Your task to perform on an android device: delete a single message in the gmail app Image 0: 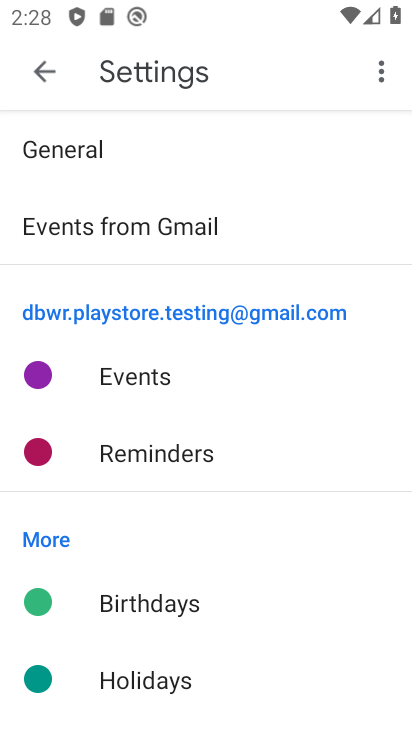
Step 0: press back button
Your task to perform on an android device: delete a single message in the gmail app Image 1: 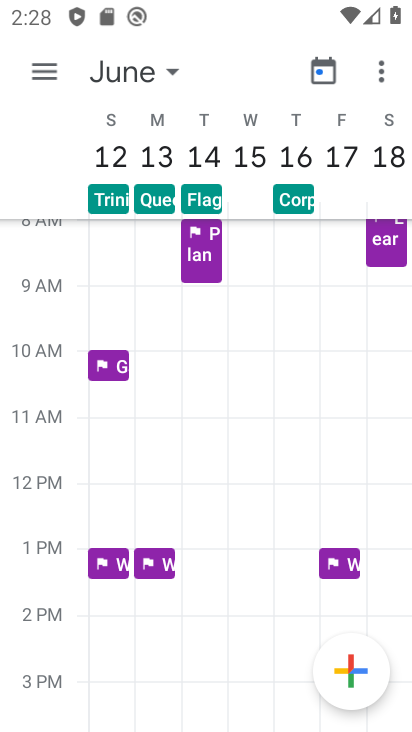
Step 1: press home button
Your task to perform on an android device: delete a single message in the gmail app Image 2: 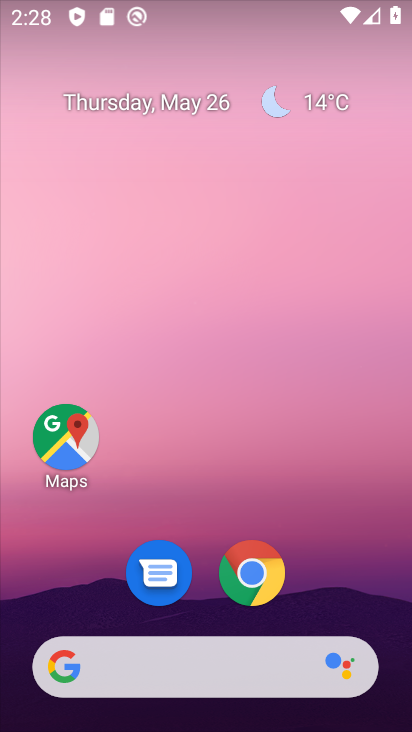
Step 2: drag from (306, 580) to (293, 20)
Your task to perform on an android device: delete a single message in the gmail app Image 3: 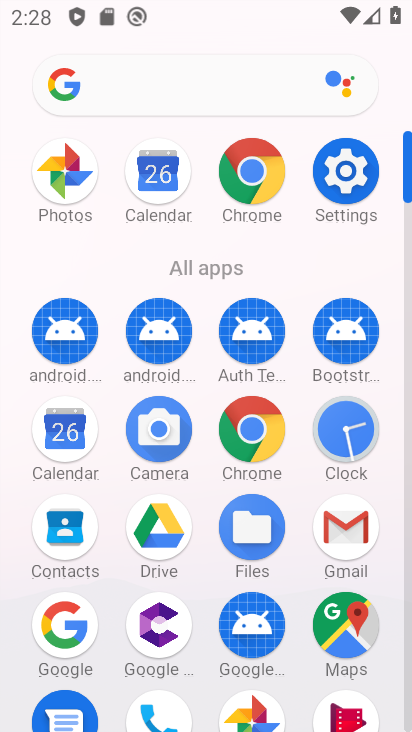
Step 3: click (344, 524)
Your task to perform on an android device: delete a single message in the gmail app Image 4: 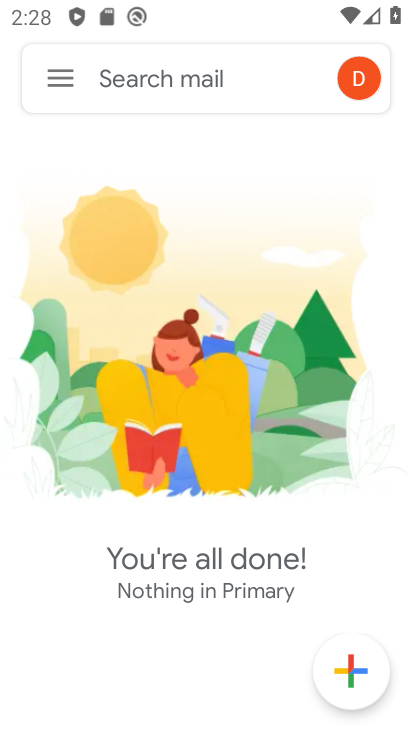
Step 4: click (54, 85)
Your task to perform on an android device: delete a single message in the gmail app Image 5: 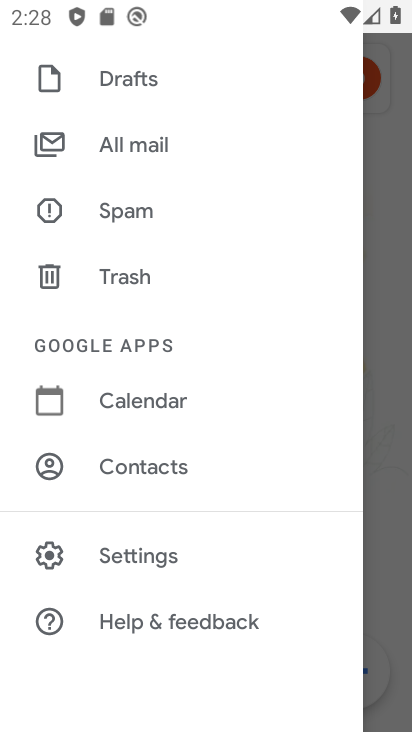
Step 5: drag from (202, 115) to (207, 537)
Your task to perform on an android device: delete a single message in the gmail app Image 6: 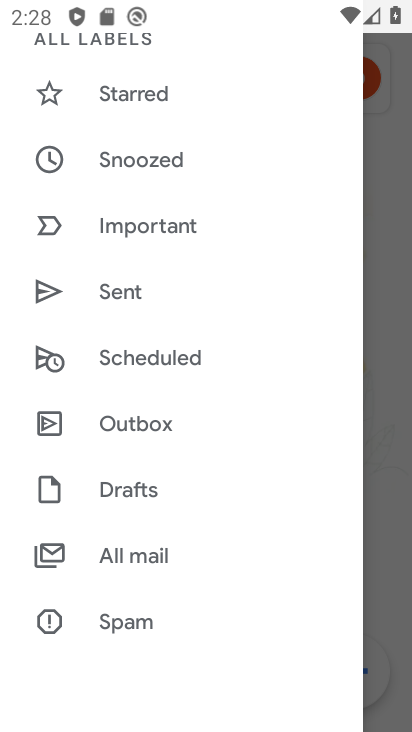
Step 6: drag from (247, 157) to (246, 575)
Your task to perform on an android device: delete a single message in the gmail app Image 7: 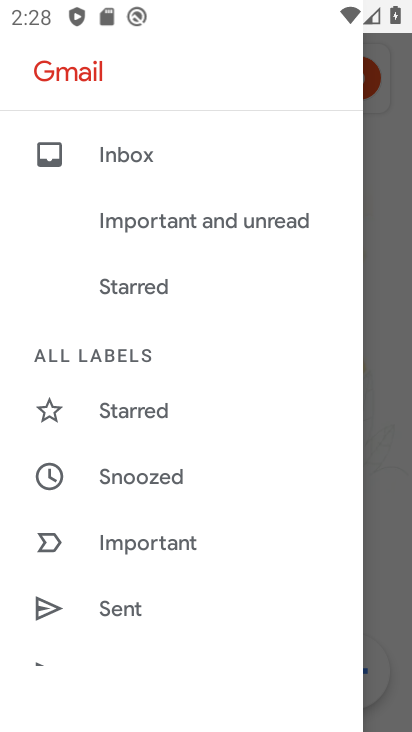
Step 7: drag from (207, 471) to (227, 125)
Your task to perform on an android device: delete a single message in the gmail app Image 8: 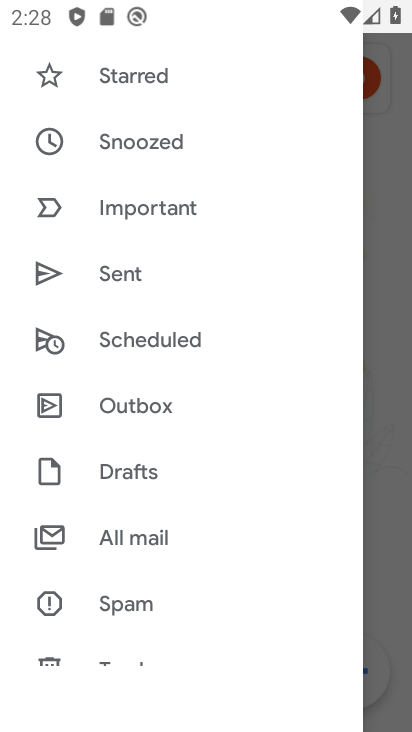
Step 8: drag from (245, 476) to (266, 175)
Your task to perform on an android device: delete a single message in the gmail app Image 9: 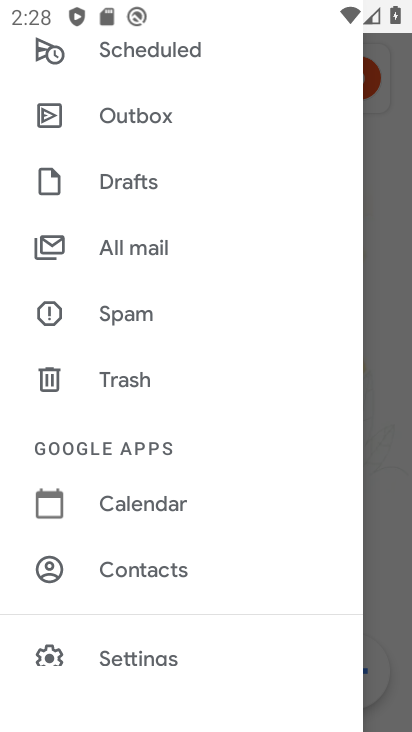
Step 9: drag from (191, 469) to (248, 138)
Your task to perform on an android device: delete a single message in the gmail app Image 10: 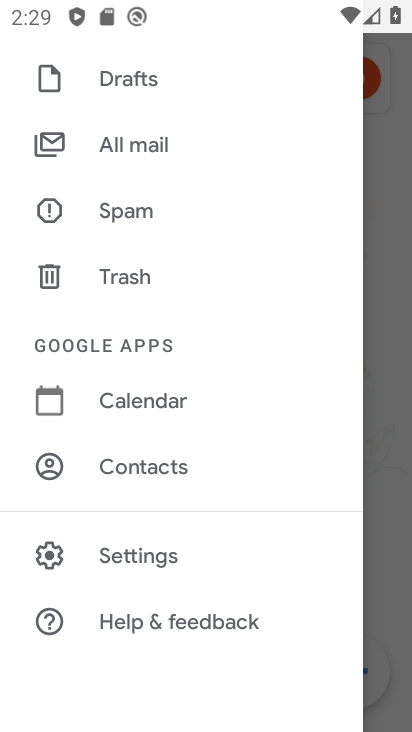
Step 10: click (138, 154)
Your task to perform on an android device: delete a single message in the gmail app Image 11: 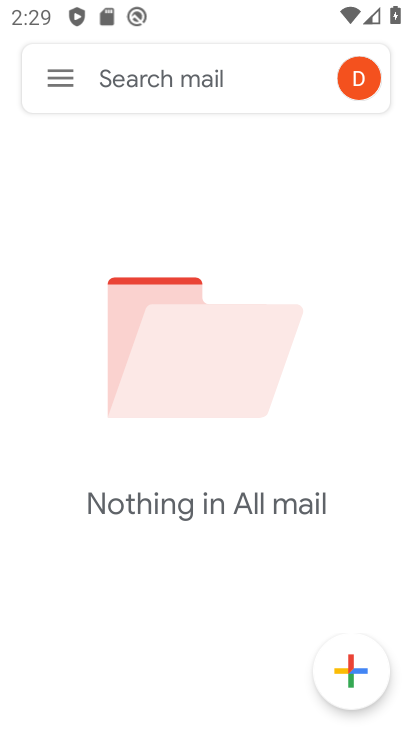
Step 11: task complete